Your task to perform on an android device: When is my next appointment? Image 0: 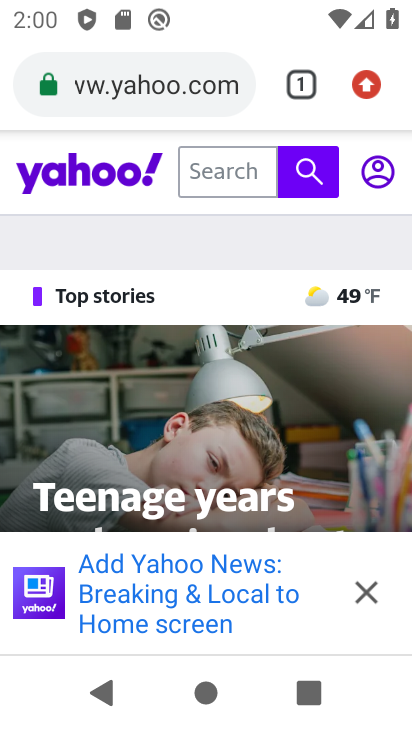
Step 0: press home button
Your task to perform on an android device: When is my next appointment? Image 1: 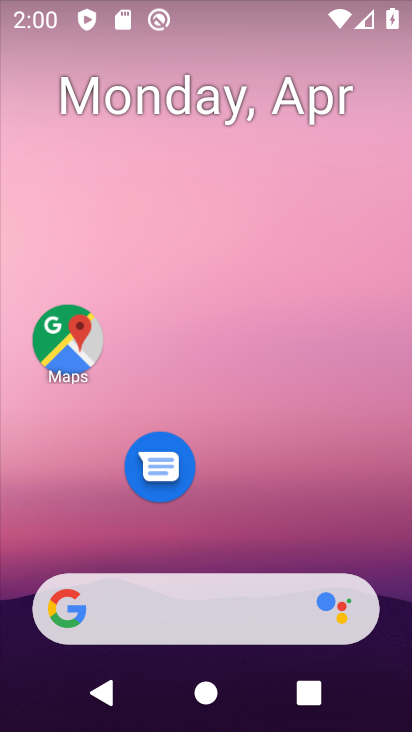
Step 1: drag from (310, 527) to (263, 192)
Your task to perform on an android device: When is my next appointment? Image 2: 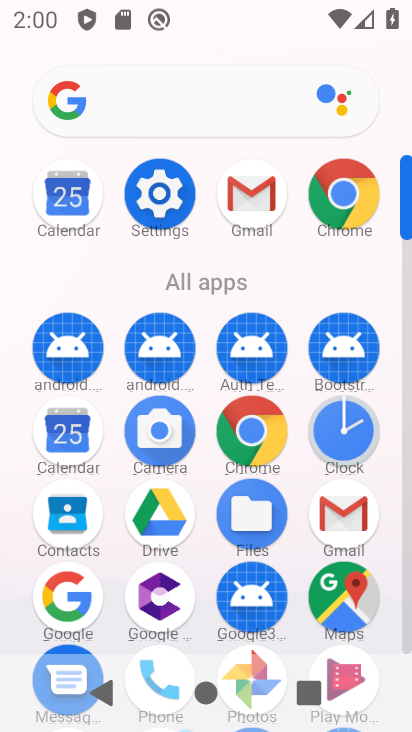
Step 2: click (70, 219)
Your task to perform on an android device: When is my next appointment? Image 3: 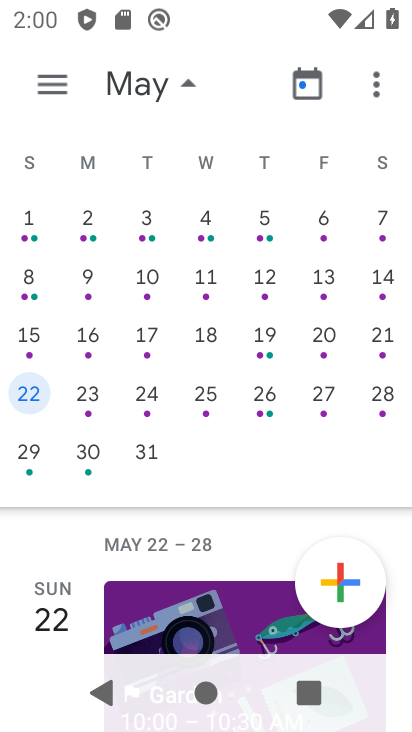
Step 3: drag from (51, 301) to (389, 219)
Your task to perform on an android device: When is my next appointment? Image 4: 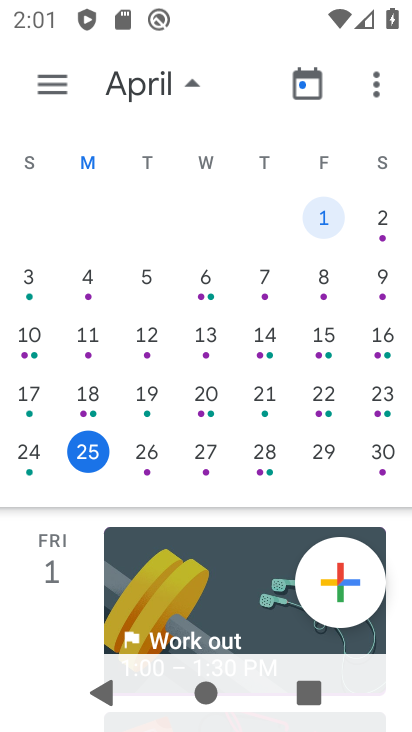
Step 4: drag from (142, 497) to (191, 276)
Your task to perform on an android device: When is my next appointment? Image 5: 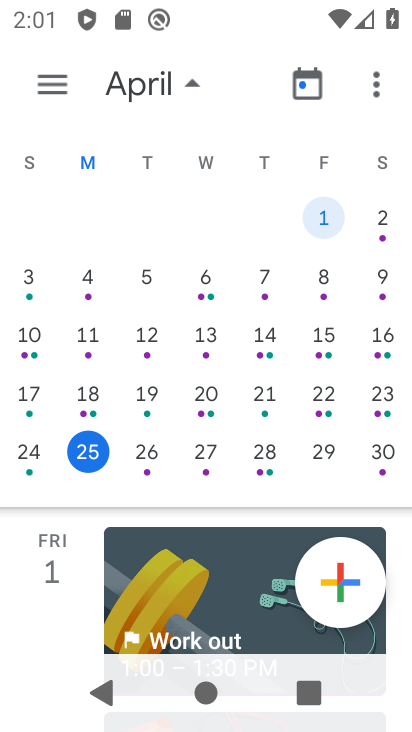
Step 5: click (84, 455)
Your task to perform on an android device: When is my next appointment? Image 6: 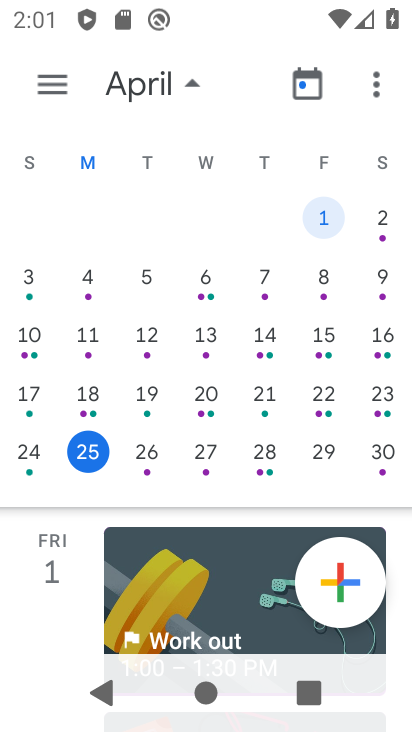
Step 6: click (101, 461)
Your task to perform on an android device: When is my next appointment? Image 7: 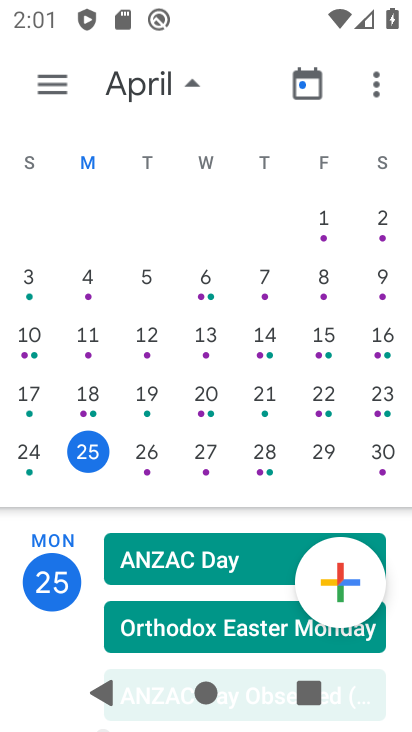
Step 7: task complete